Your task to perform on an android device: delete a single message in the gmail app Image 0: 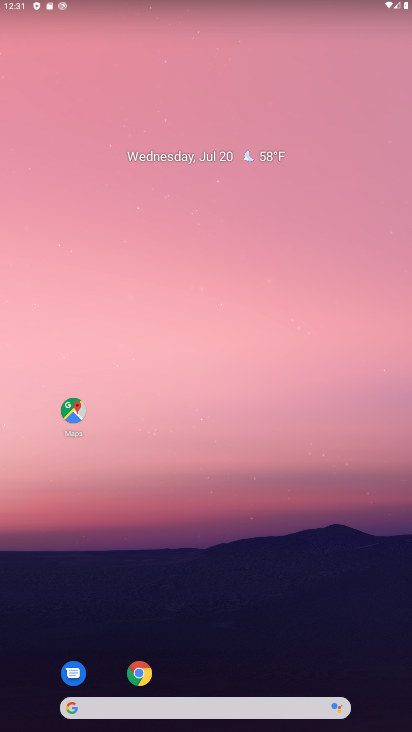
Step 0: drag from (269, 565) to (218, 143)
Your task to perform on an android device: delete a single message in the gmail app Image 1: 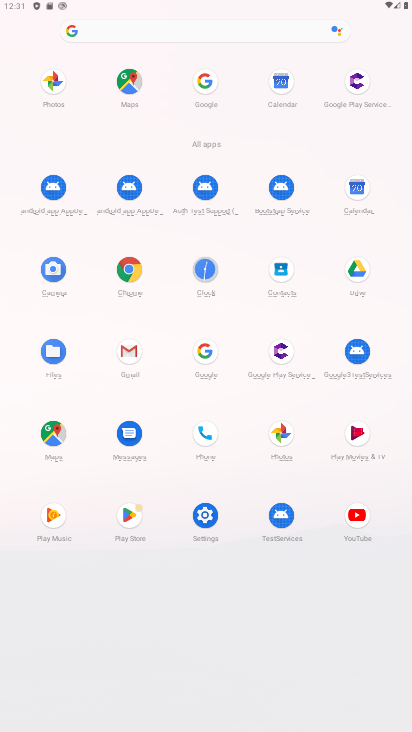
Step 1: click (121, 351)
Your task to perform on an android device: delete a single message in the gmail app Image 2: 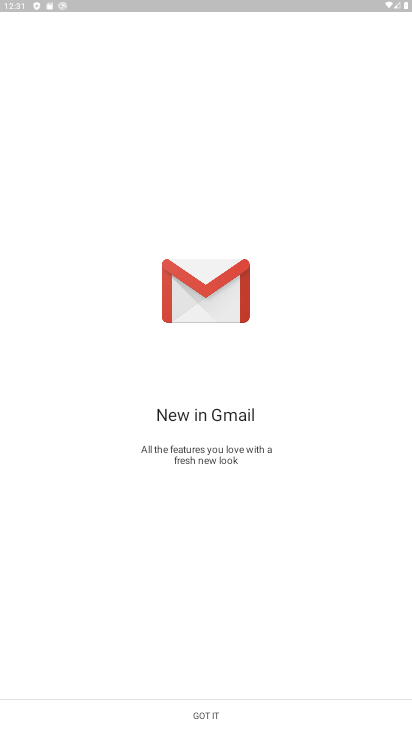
Step 2: click (323, 720)
Your task to perform on an android device: delete a single message in the gmail app Image 3: 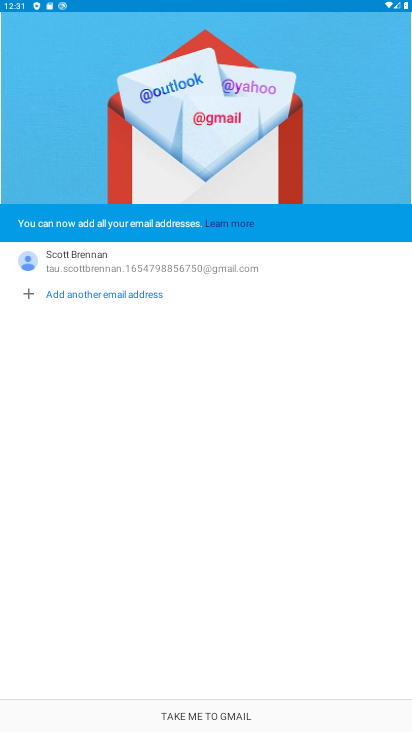
Step 3: click (219, 708)
Your task to perform on an android device: delete a single message in the gmail app Image 4: 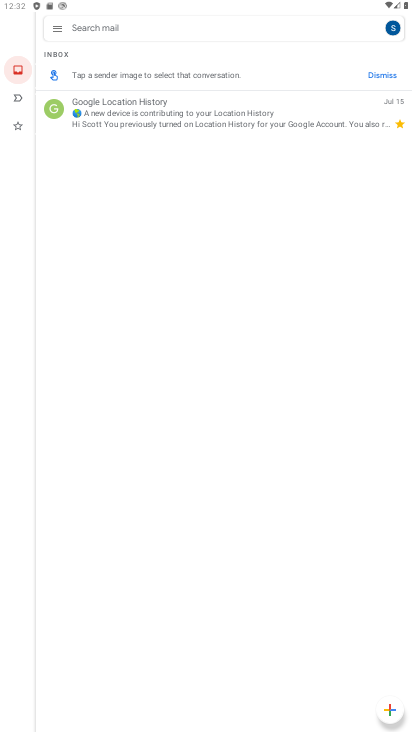
Step 4: click (94, 96)
Your task to perform on an android device: delete a single message in the gmail app Image 5: 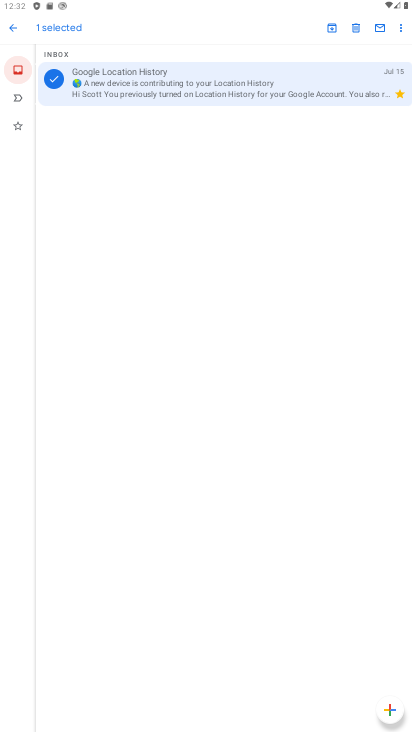
Step 5: click (352, 26)
Your task to perform on an android device: delete a single message in the gmail app Image 6: 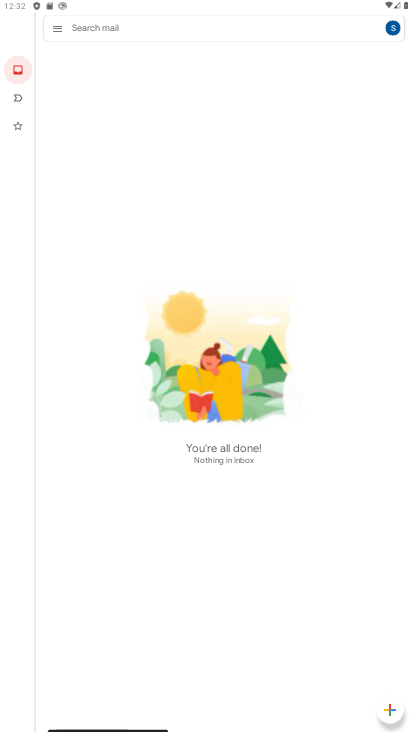
Step 6: task complete